Your task to perform on an android device: refresh tabs in the chrome app Image 0: 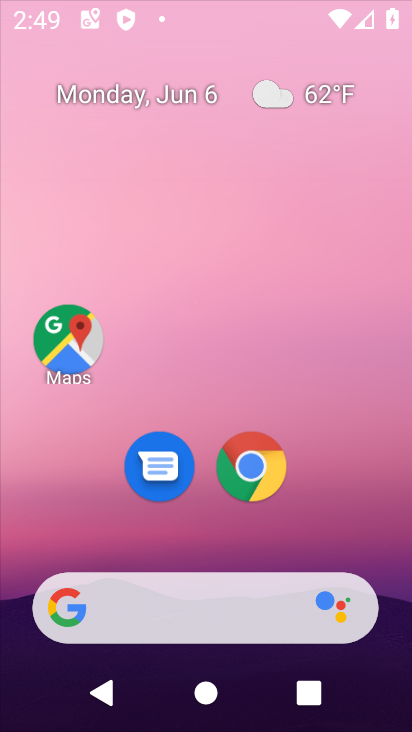
Step 0: drag from (405, 559) to (99, 7)
Your task to perform on an android device: refresh tabs in the chrome app Image 1: 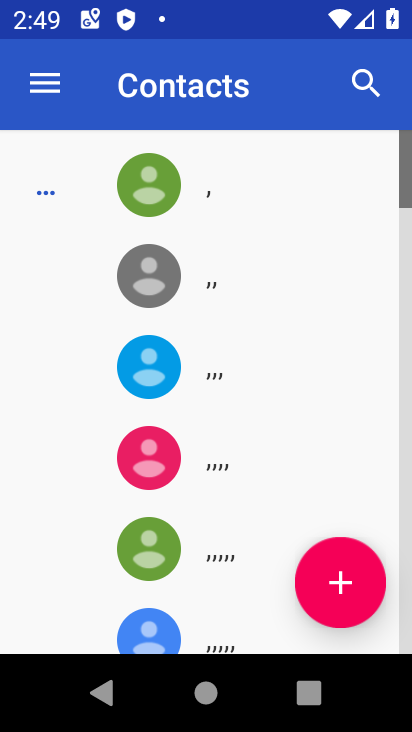
Step 1: press back button
Your task to perform on an android device: refresh tabs in the chrome app Image 2: 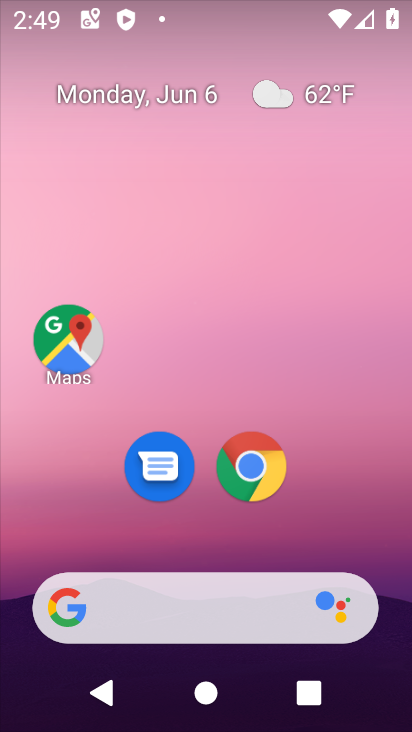
Step 2: drag from (281, 692) to (177, 5)
Your task to perform on an android device: refresh tabs in the chrome app Image 3: 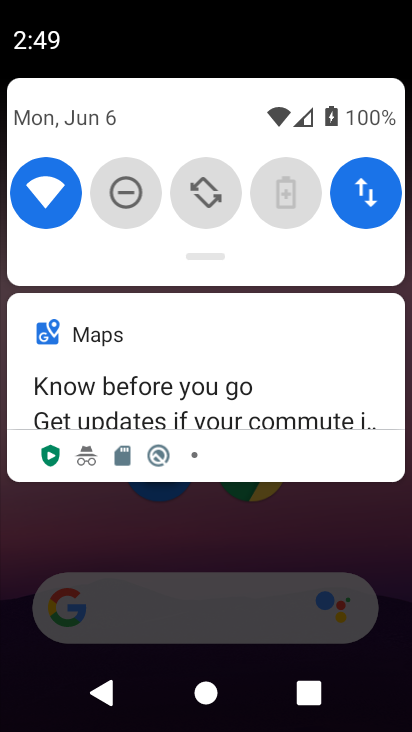
Step 3: drag from (364, 618) to (212, 138)
Your task to perform on an android device: refresh tabs in the chrome app Image 4: 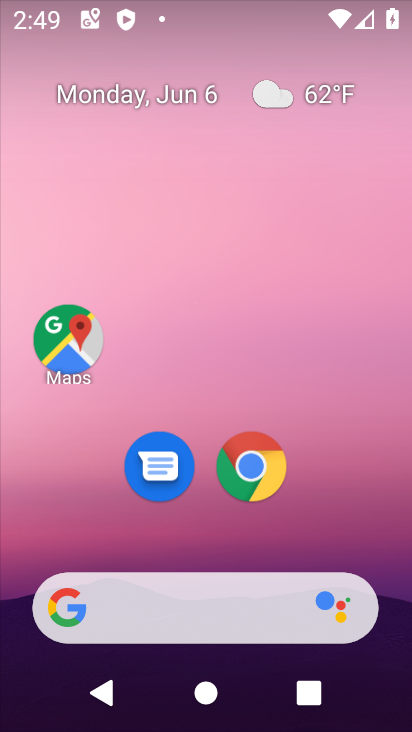
Step 4: drag from (350, 599) to (267, 220)
Your task to perform on an android device: refresh tabs in the chrome app Image 5: 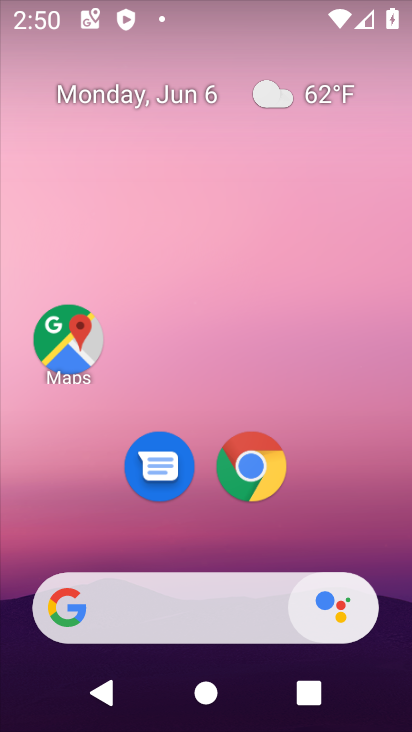
Step 5: drag from (357, 603) to (291, 141)
Your task to perform on an android device: refresh tabs in the chrome app Image 6: 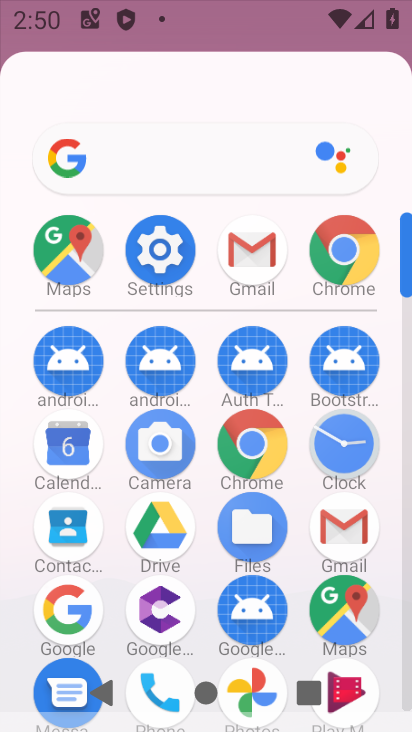
Step 6: click (206, 134)
Your task to perform on an android device: refresh tabs in the chrome app Image 7: 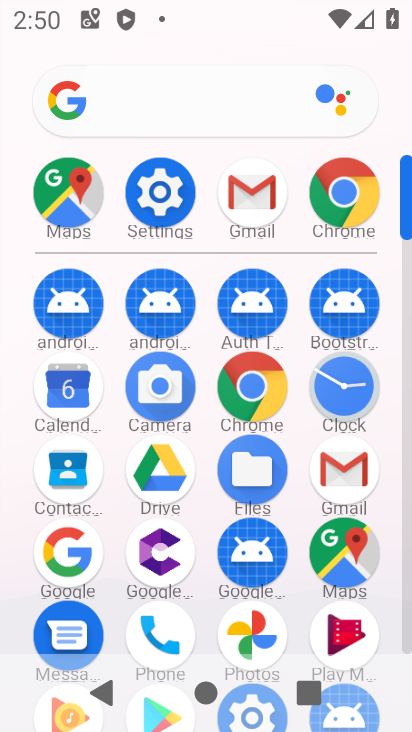
Step 7: drag from (222, 667) to (148, 142)
Your task to perform on an android device: refresh tabs in the chrome app Image 8: 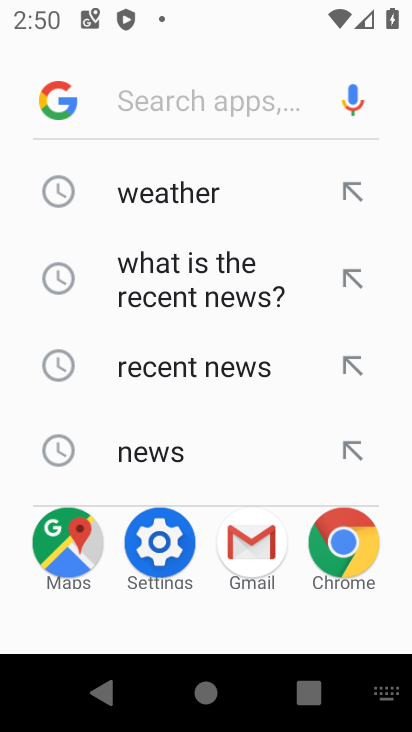
Step 8: click (352, 531)
Your task to perform on an android device: refresh tabs in the chrome app Image 9: 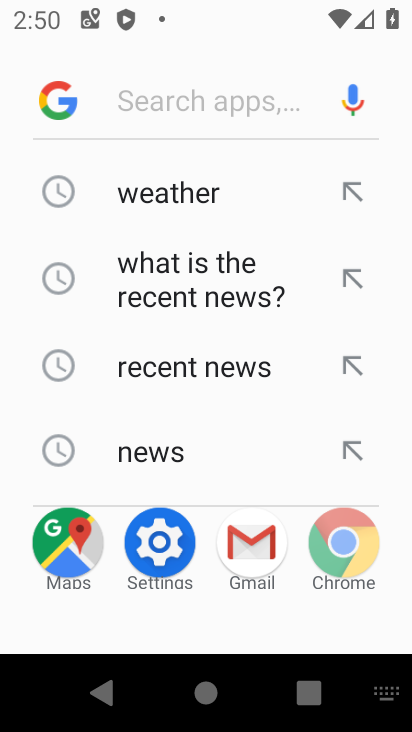
Step 9: click (352, 531)
Your task to perform on an android device: refresh tabs in the chrome app Image 10: 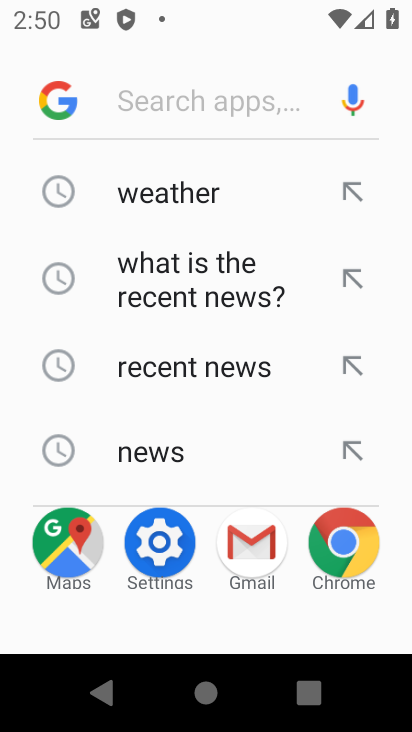
Step 10: click (352, 531)
Your task to perform on an android device: refresh tabs in the chrome app Image 11: 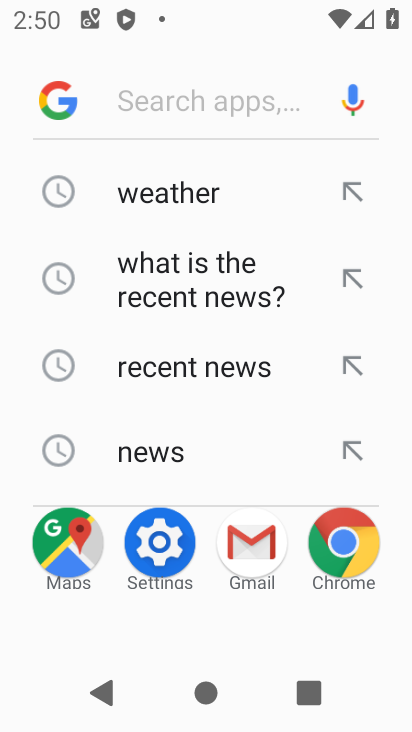
Step 11: click (344, 538)
Your task to perform on an android device: refresh tabs in the chrome app Image 12: 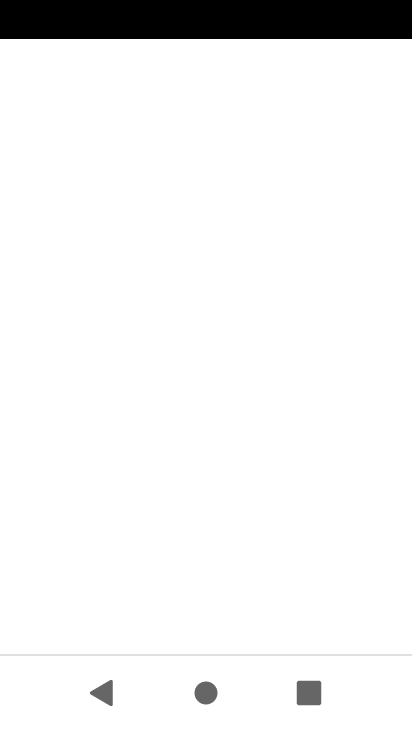
Step 12: click (335, 545)
Your task to perform on an android device: refresh tabs in the chrome app Image 13: 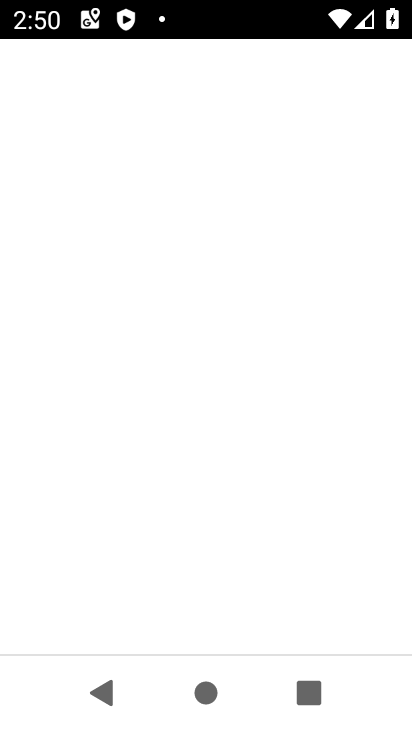
Step 13: click (331, 550)
Your task to perform on an android device: refresh tabs in the chrome app Image 14: 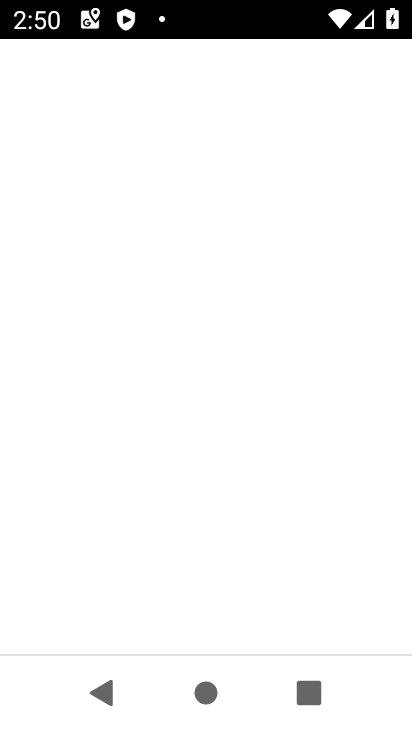
Step 14: click (328, 550)
Your task to perform on an android device: refresh tabs in the chrome app Image 15: 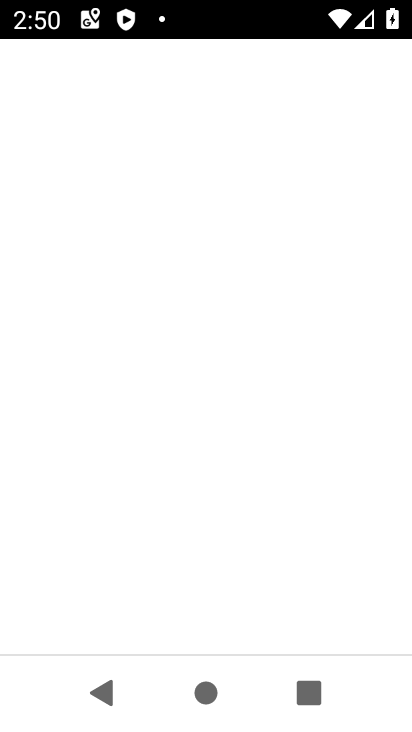
Step 15: click (326, 550)
Your task to perform on an android device: refresh tabs in the chrome app Image 16: 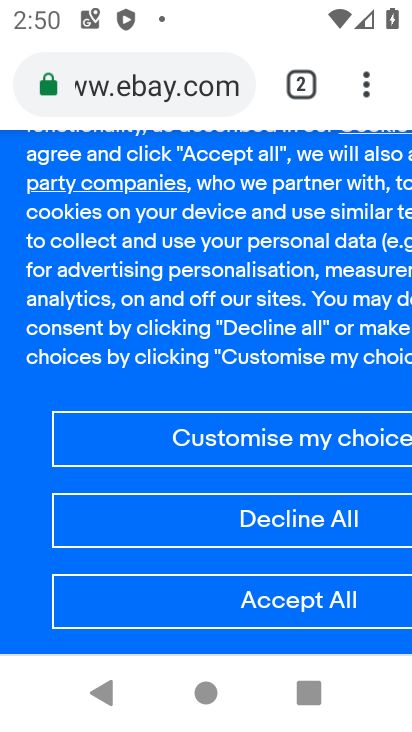
Step 16: click (364, 98)
Your task to perform on an android device: refresh tabs in the chrome app Image 17: 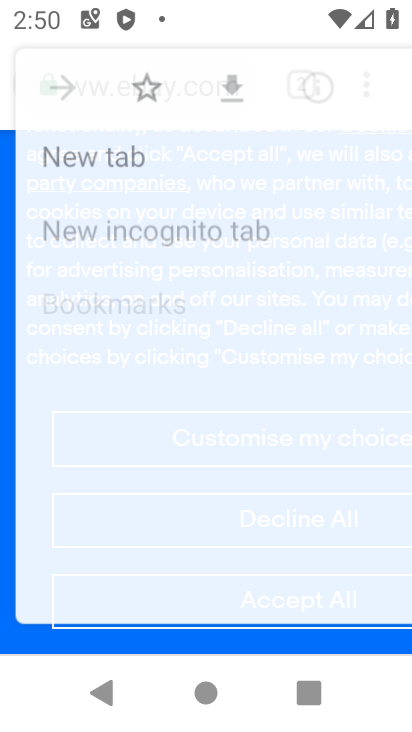
Step 17: click (363, 97)
Your task to perform on an android device: refresh tabs in the chrome app Image 18: 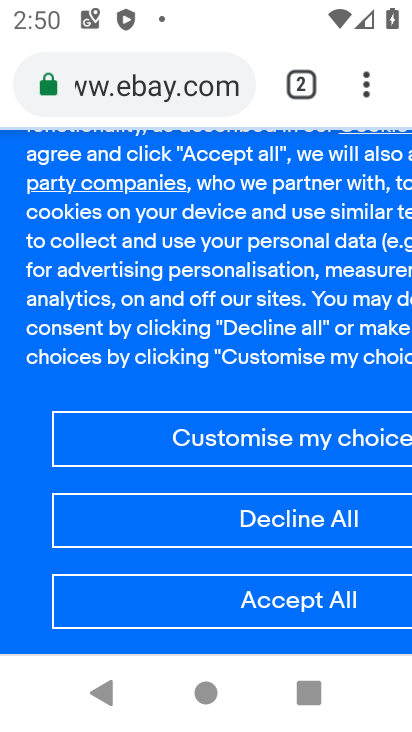
Step 18: task complete